Your task to perform on an android device: See recent photos Image 0: 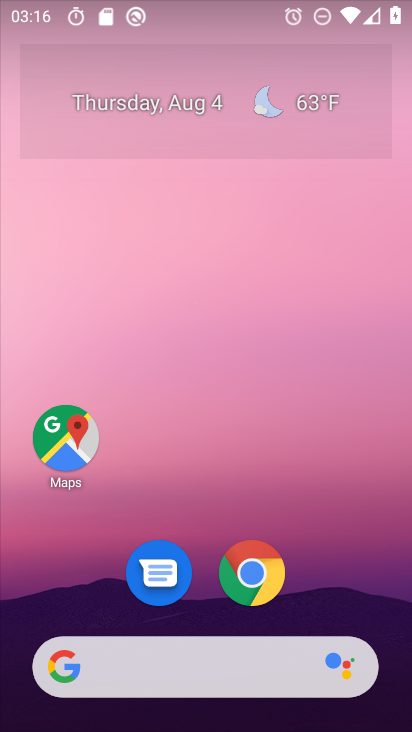
Step 0: drag from (346, 542) to (310, 33)
Your task to perform on an android device: See recent photos Image 1: 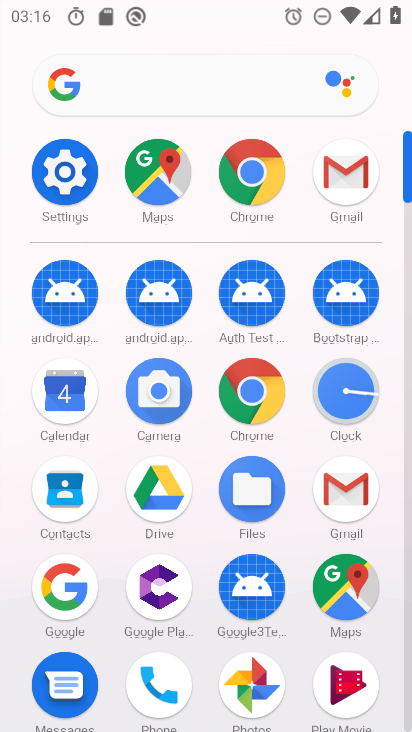
Step 1: click (245, 686)
Your task to perform on an android device: See recent photos Image 2: 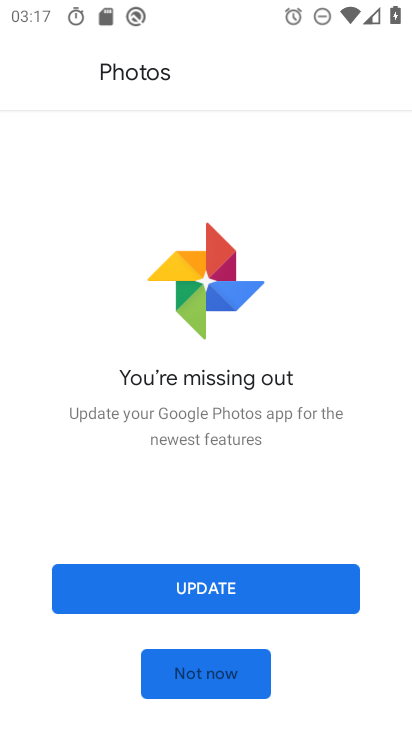
Step 2: click (206, 682)
Your task to perform on an android device: See recent photos Image 3: 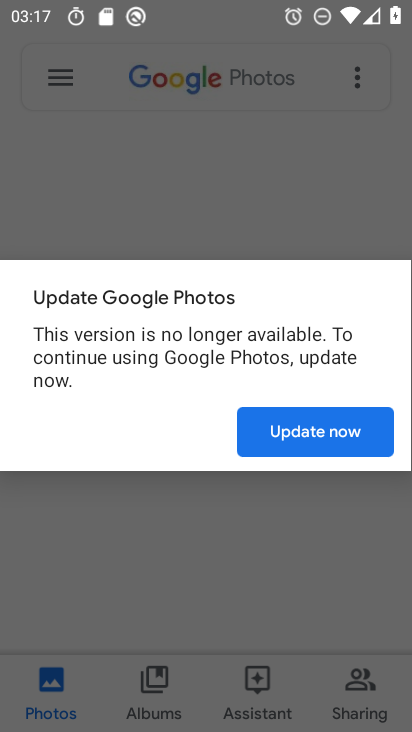
Step 3: click (321, 439)
Your task to perform on an android device: See recent photos Image 4: 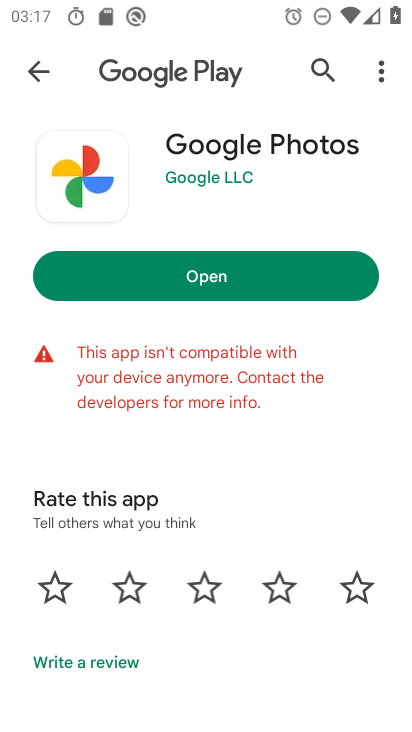
Step 4: task complete